Your task to perform on an android device: Open the map Image 0: 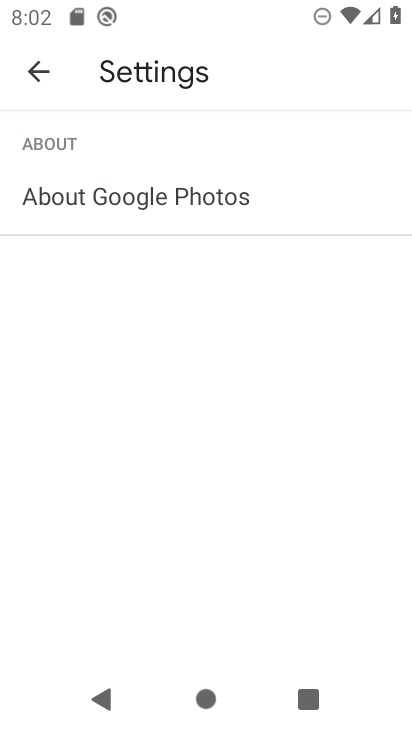
Step 0: press back button
Your task to perform on an android device: Open the map Image 1: 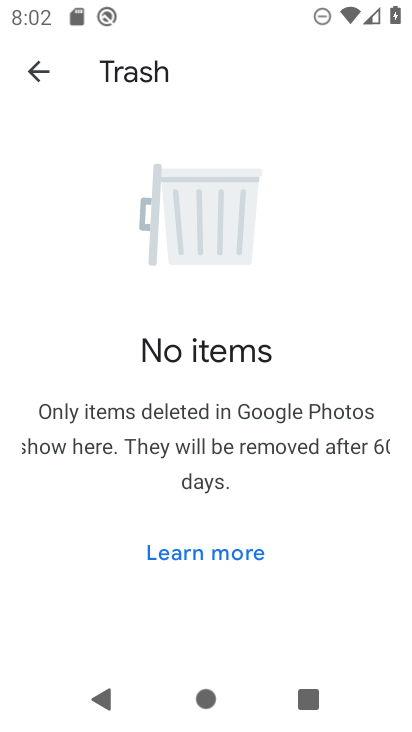
Step 1: press home button
Your task to perform on an android device: Open the map Image 2: 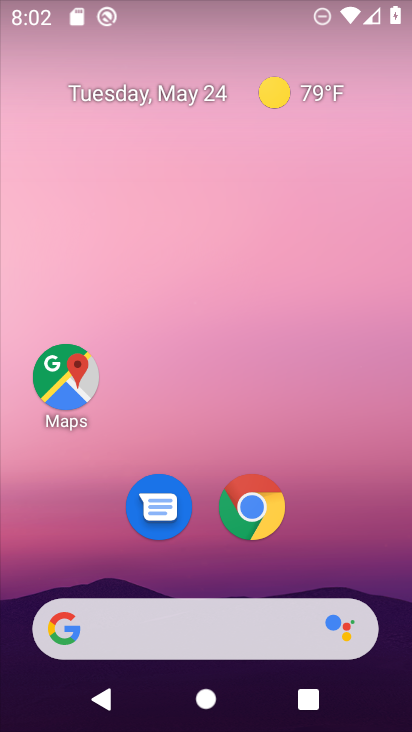
Step 2: drag from (333, 554) to (277, 25)
Your task to perform on an android device: Open the map Image 3: 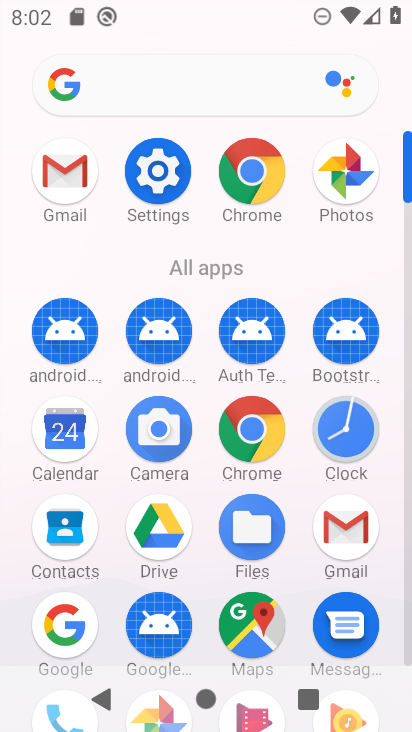
Step 3: drag from (0, 532) to (252, 621)
Your task to perform on an android device: Open the map Image 4: 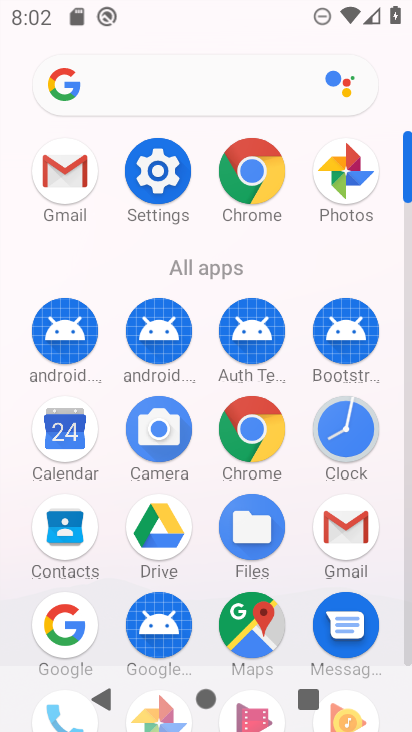
Step 4: click (250, 624)
Your task to perform on an android device: Open the map Image 5: 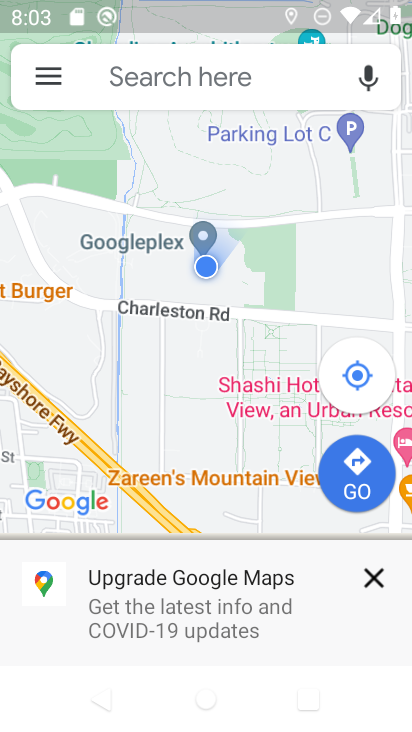
Step 5: task complete